Your task to perform on an android device: change the clock display to analog Image 0: 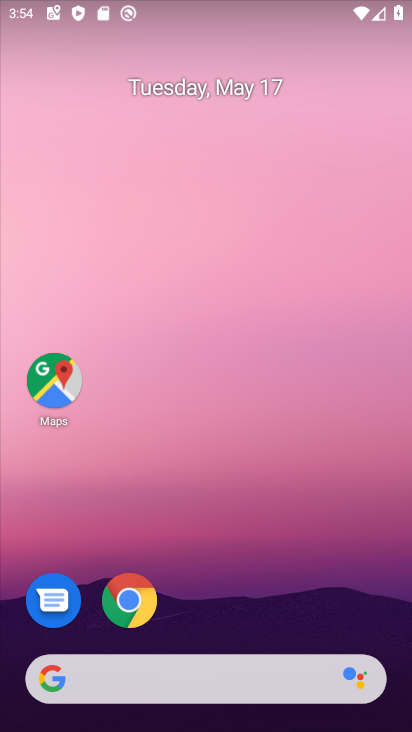
Step 0: drag from (229, 632) to (299, 81)
Your task to perform on an android device: change the clock display to analog Image 1: 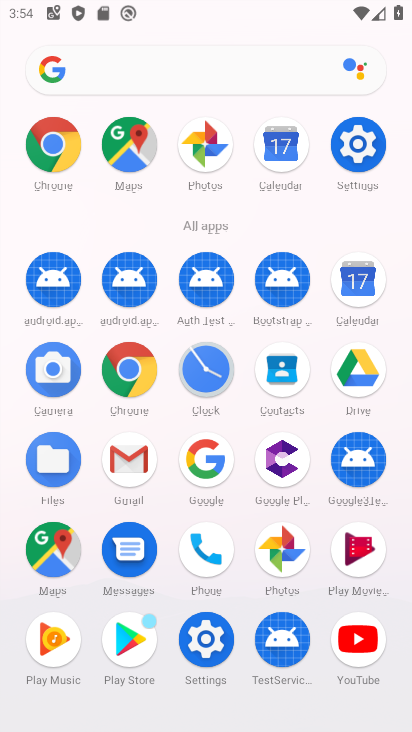
Step 1: click (214, 367)
Your task to perform on an android device: change the clock display to analog Image 2: 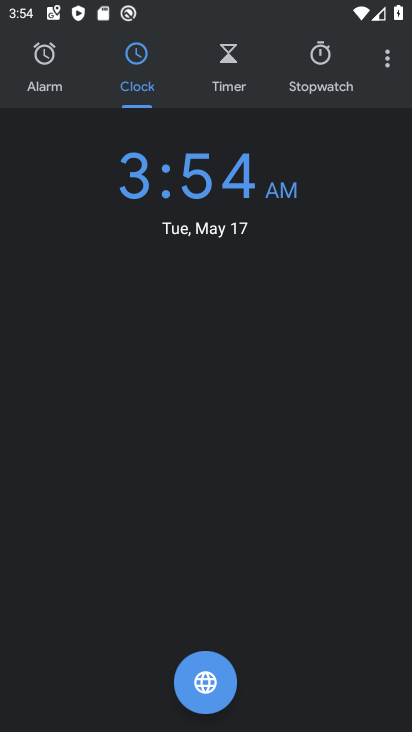
Step 2: click (385, 67)
Your task to perform on an android device: change the clock display to analog Image 3: 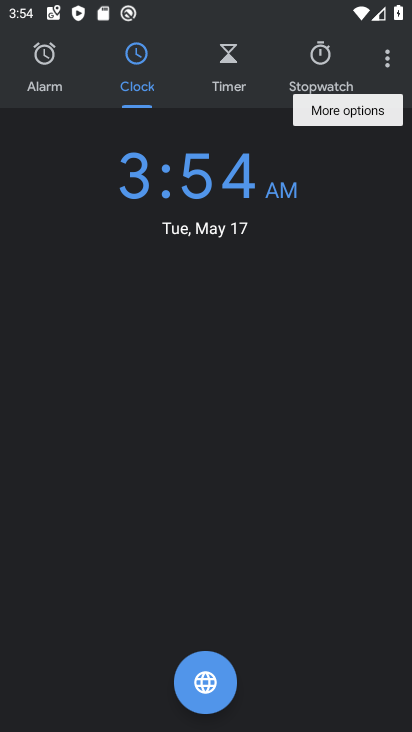
Step 3: click (387, 68)
Your task to perform on an android device: change the clock display to analog Image 4: 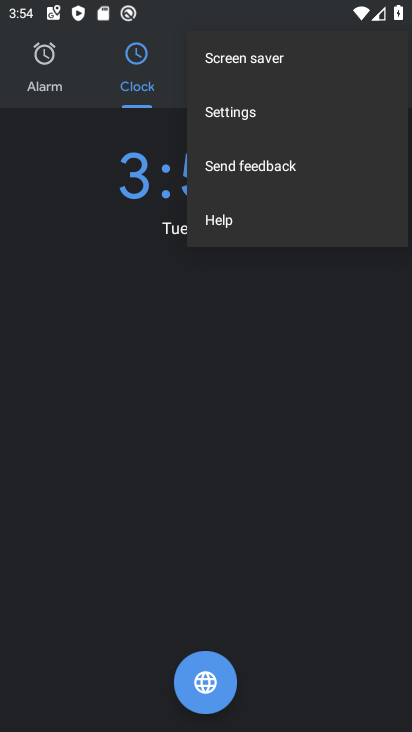
Step 4: click (238, 113)
Your task to perform on an android device: change the clock display to analog Image 5: 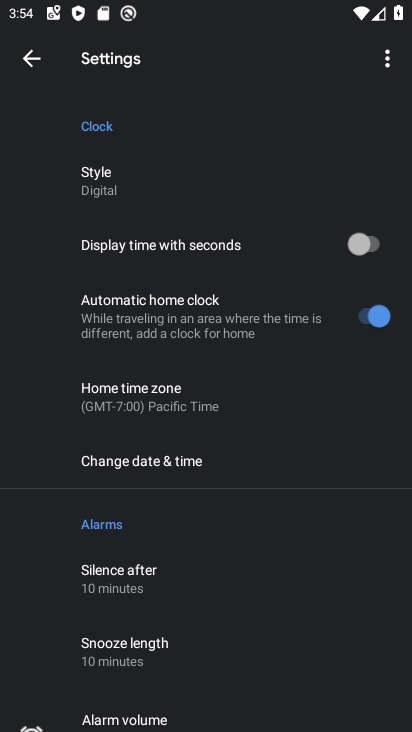
Step 5: click (122, 185)
Your task to perform on an android device: change the clock display to analog Image 6: 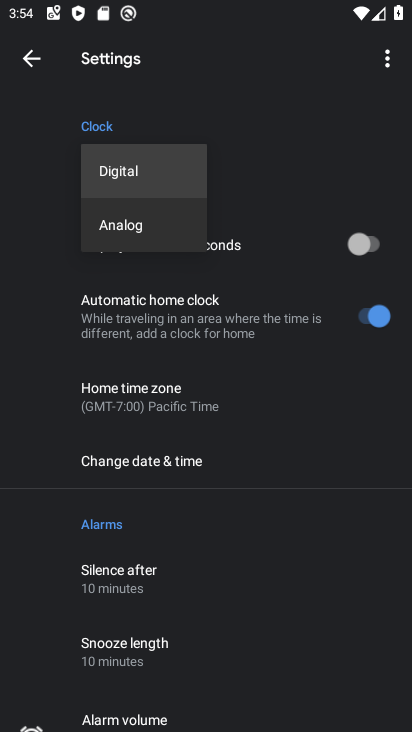
Step 6: click (121, 234)
Your task to perform on an android device: change the clock display to analog Image 7: 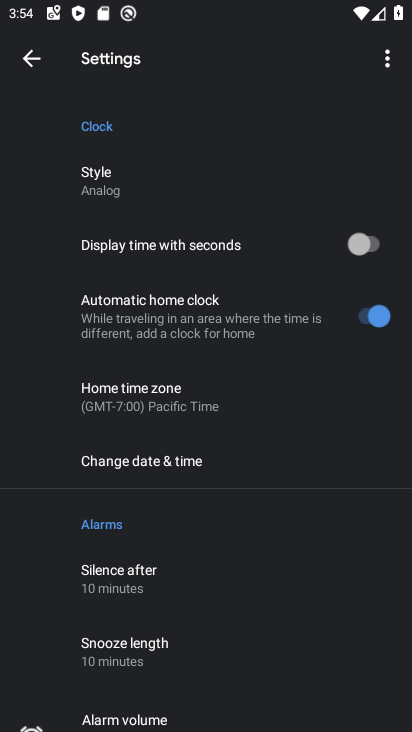
Step 7: task complete